Your task to perform on an android device: Open the stopwatch Image 0: 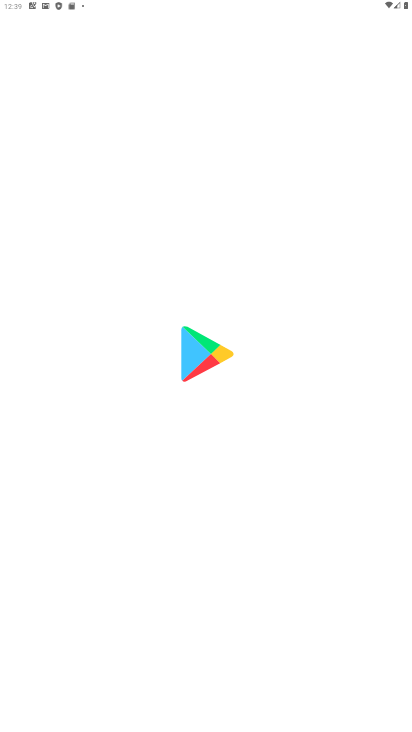
Step 0: press home button
Your task to perform on an android device: Open the stopwatch Image 1: 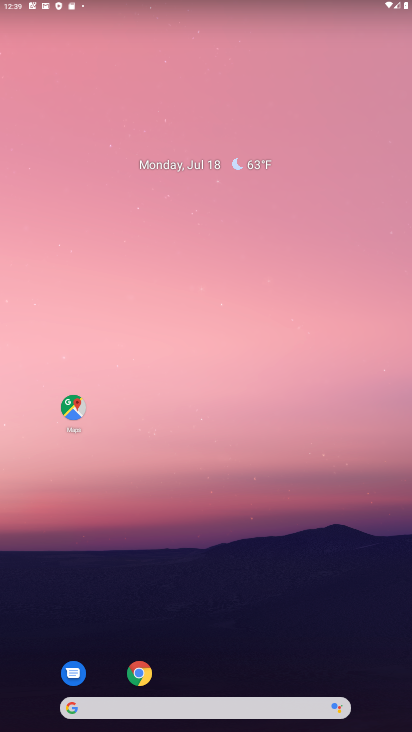
Step 1: drag from (203, 652) to (203, 292)
Your task to perform on an android device: Open the stopwatch Image 2: 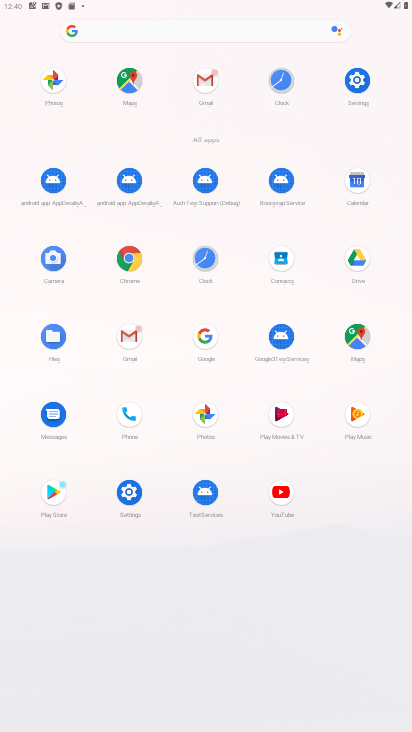
Step 2: click (277, 73)
Your task to perform on an android device: Open the stopwatch Image 3: 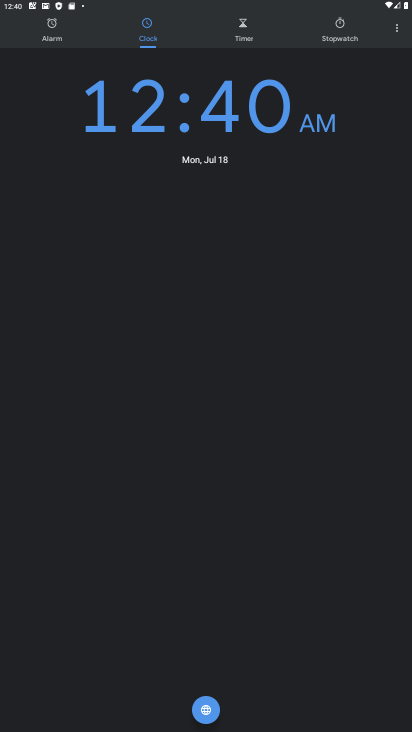
Step 3: click (323, 27)
Your task to perform on an android device: Open the stopwatch Image 4: 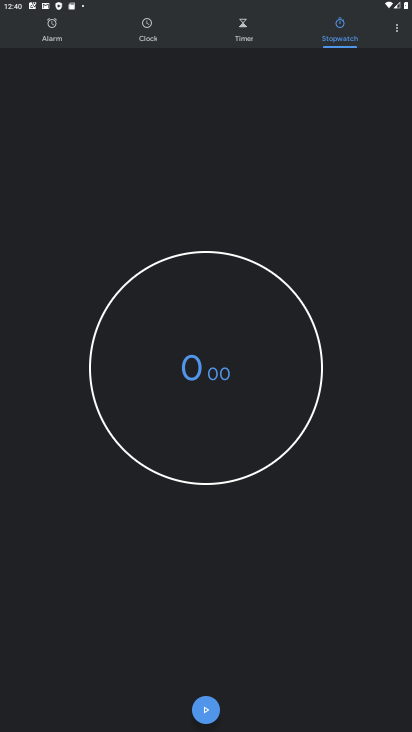
Step 4: task complete